Your task to perform on an android device: Go to Yahoo.com Image 0: 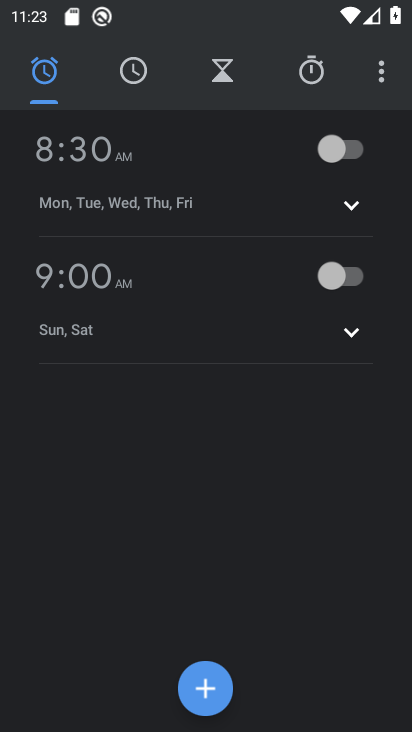
Step 0: press home button
Your task to perform on an android device: Go to Yahoo.com Image 1: 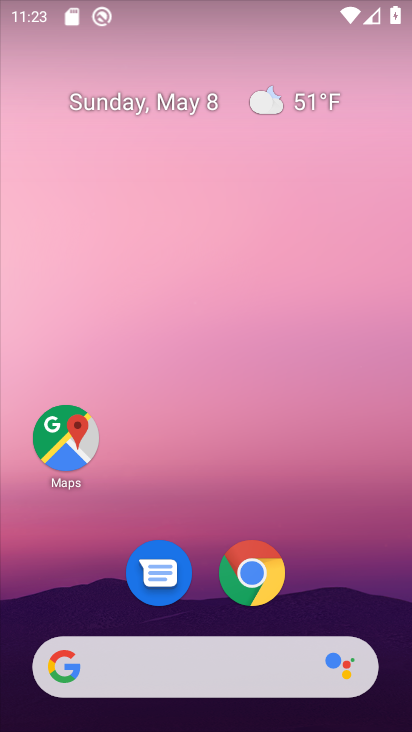
Step 1: drag from (180, 644) to (162, 228)
Your task to perform on an android device: Go to Yahoo.com Image 2: 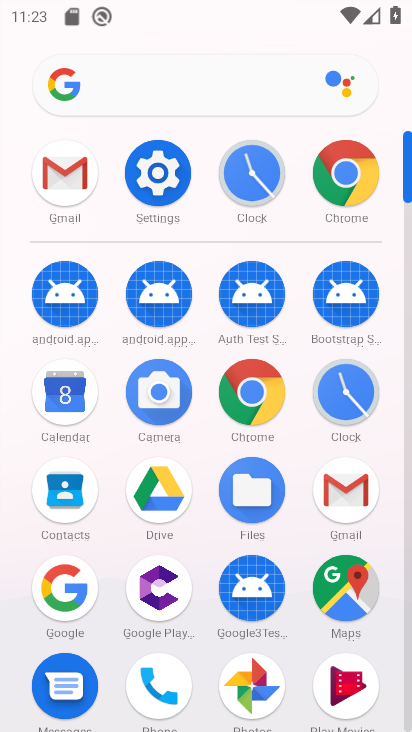
Step 2: click (344, 176)
Your task to perform on an android device: Go to Yahoo.com Image 3: 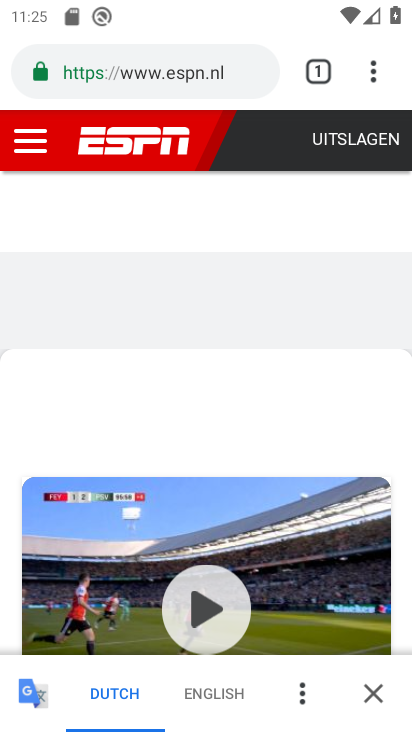
Step 3: click (314, 61)
Your task to perform on an android device: Go to Yahoo.com Image 4: 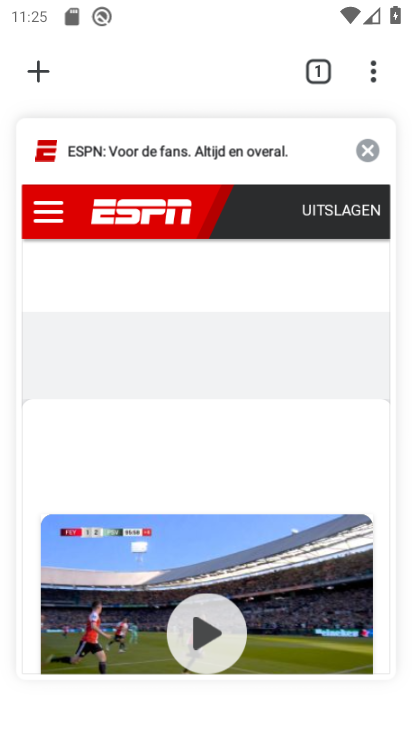
Step 4: click (368, 151)
Your task to perform on an android device: Go to Yahoo.com Image 5: 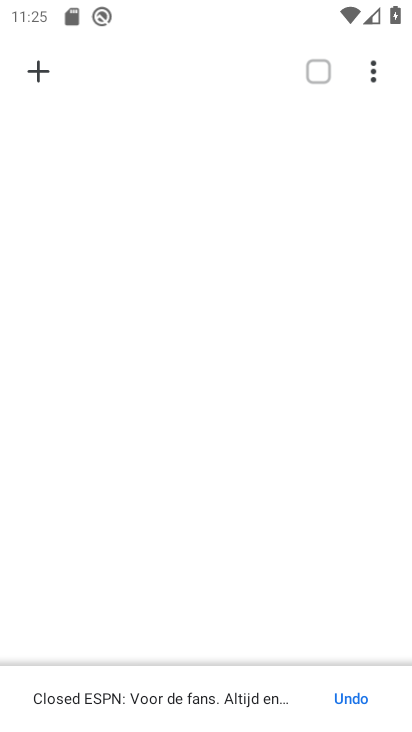
Step 5: click (24, 81)
Your task to perform on an android device: Go to Yahoo.com Image 6: 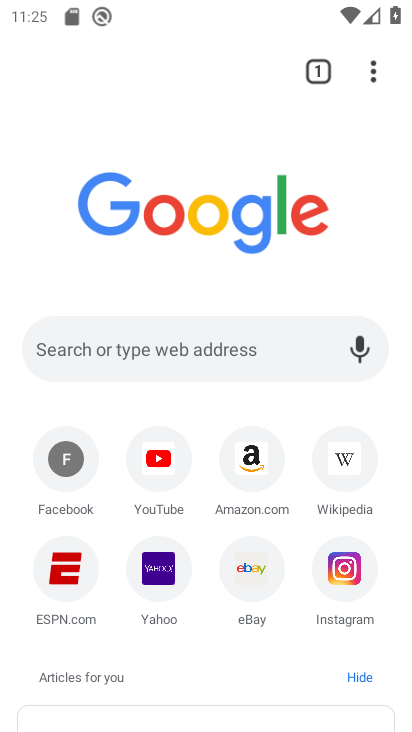
Step 6: click (162, 575)
Your task to perform on an android device: Go to Yahoo.com Image 7: 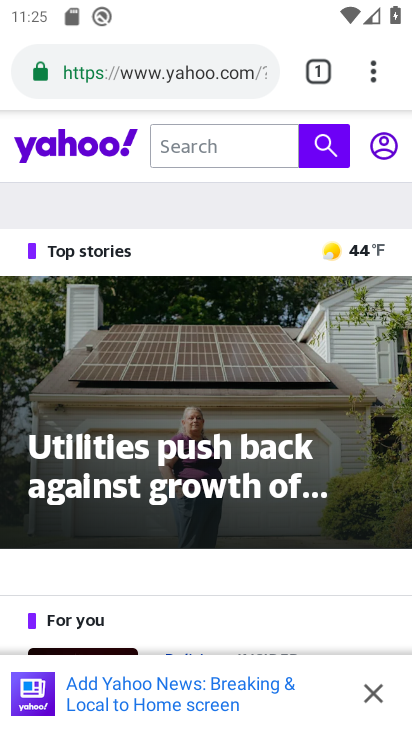
Step 7: task complete